Your task to perform on an android device: Open Android settings Image 0: 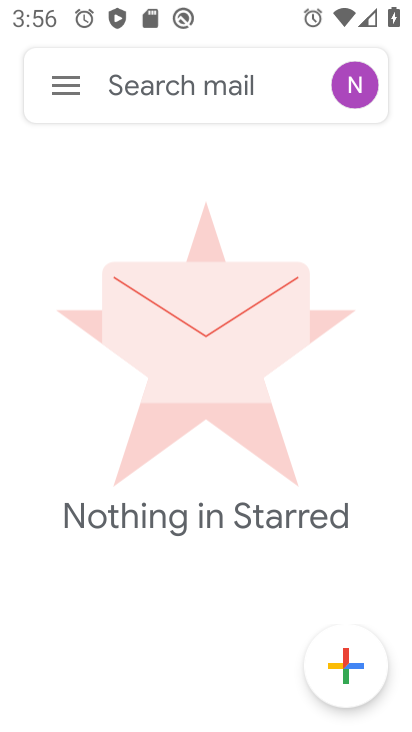
Step 0: press home button
Your task to perform on an android device: Open Android settings Image 1: 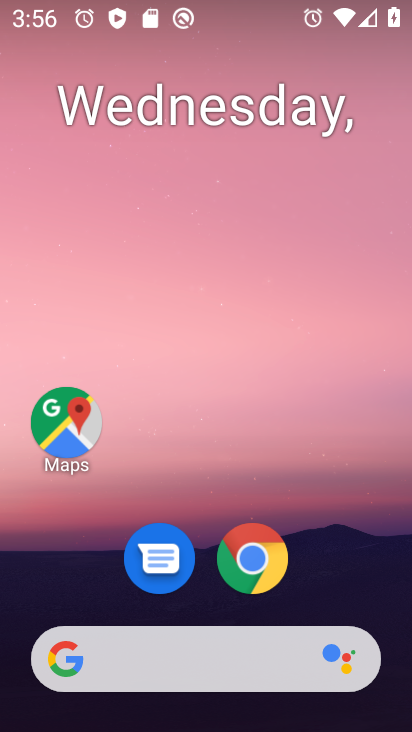
Step 1: drag from (110, 645) to (113, 290)
Your task to perform on an android device: Open Android settings Image 2: 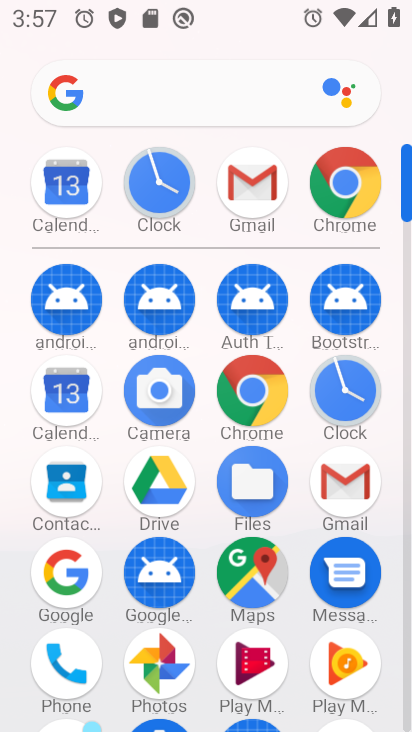
Step 2: drag from (198, 658) to (178, 267)
Your task to perform on an android device: Open Android settings Image 3: 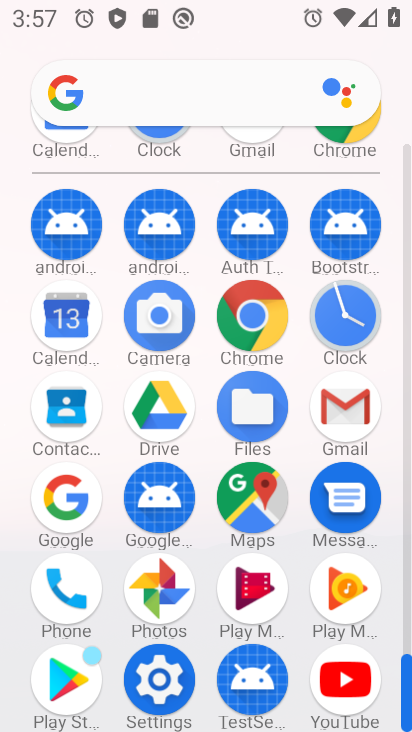
Step 3: click (156, 681)
Your task to perform on an android device: Open Android settings Image 4: 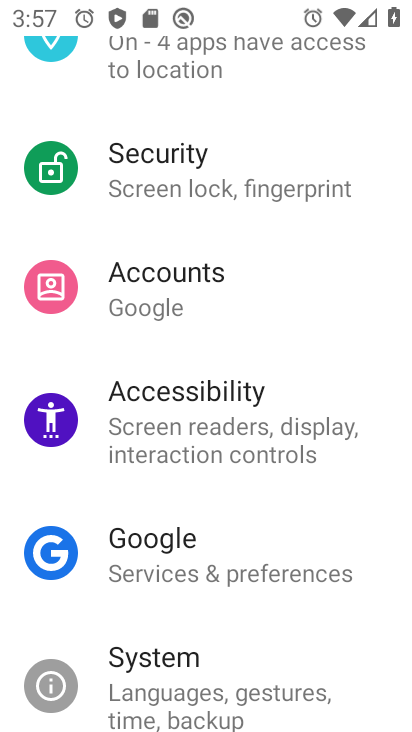
Step 4: task complete